Your task to perform on an android device: delete browsing data in the chrome app Image 0: 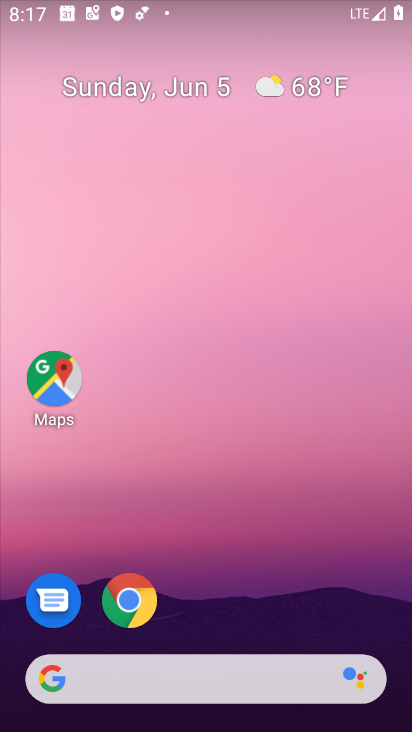
Step 0: click (134, 594)
Your task to perform on an android device: delete browsing data in the chrome app Image 1: 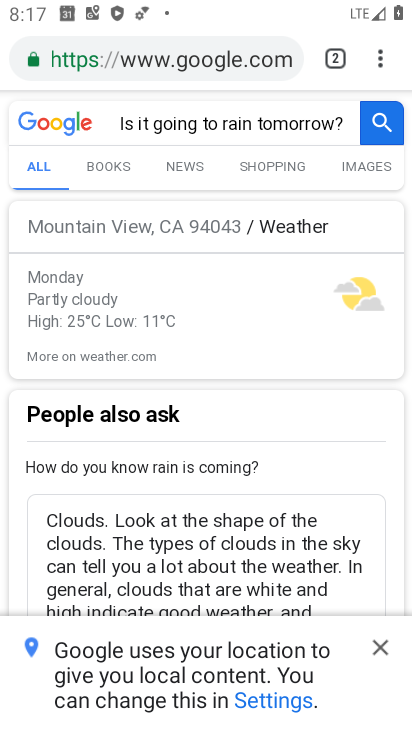
Step 1: click (376, 57)
Your task to perform on an android device: delete browsing data in the chrome app Image 2: 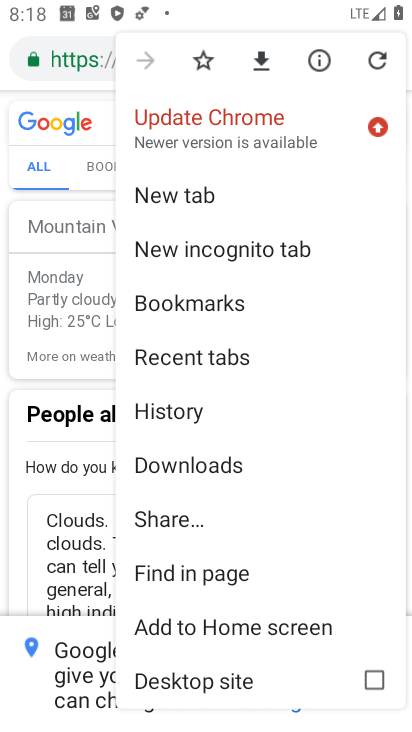
Step 2: click (191, 407)
Your task to perform on an android device: delete browsing data in the chrome app Image 3: 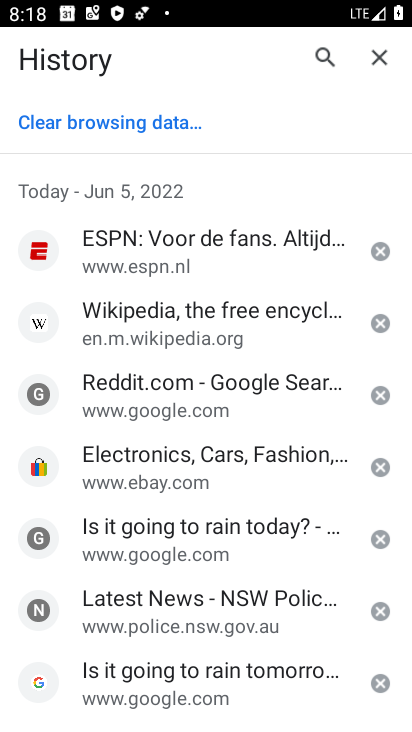
Step 3: click (134, 120)
Your task to perform on an android device: delete browsing data in the chrome app Image 4: 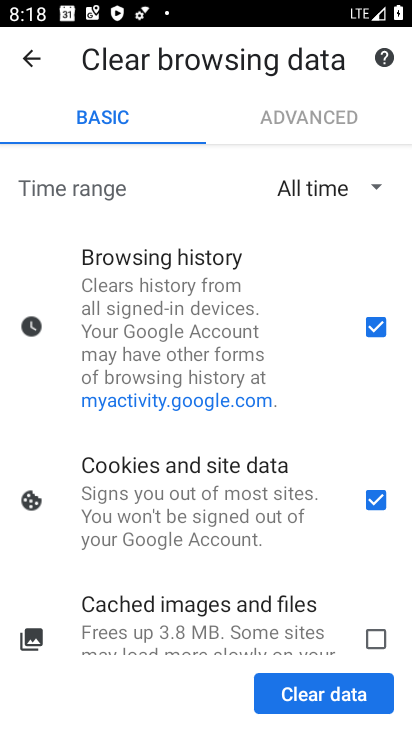
Step 4: click (357, 691)
Your task to perform on an android device: delete browsing data in the chrome app Image 5: 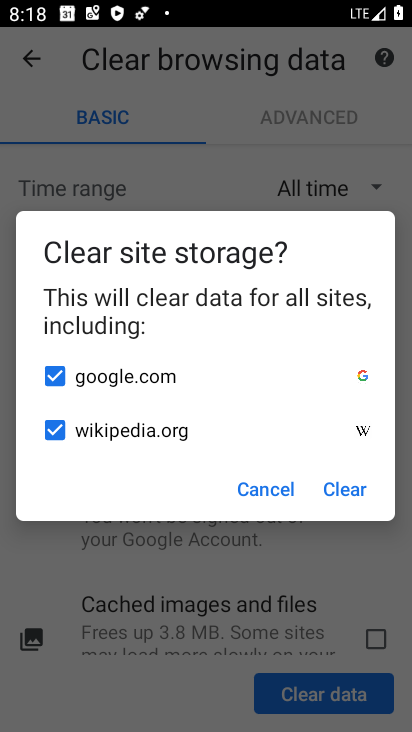
Step 5: click (358, 487)
Your task to perform on an android device: delete browsing data in the chrome app Image 6: 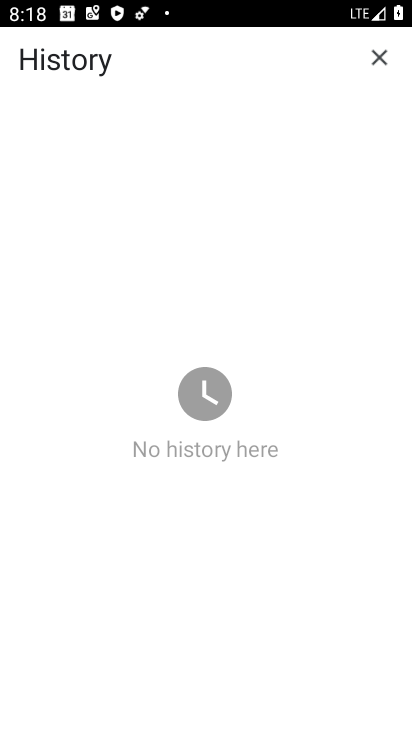
Step 6: task complete